Your task to perform on an android device: When is my next meeting? Image 0: 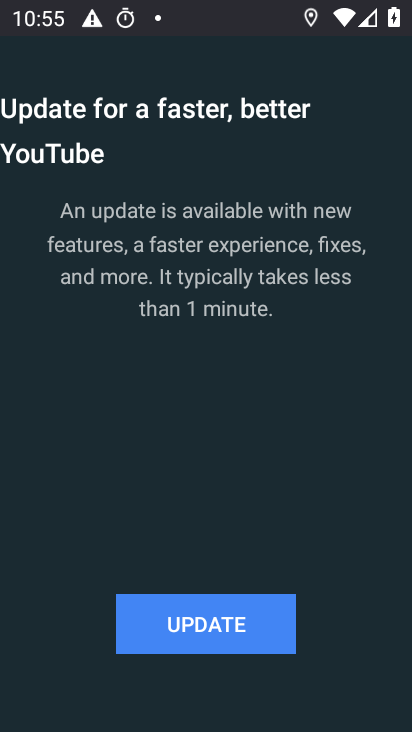
Step 0: press home button
Your task to perform on an android device: When is my next meeting? Image 1: 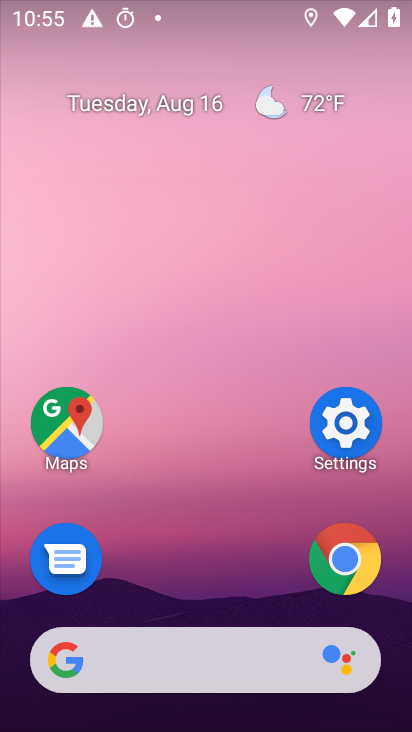
Step 1: drag from (200, 652) to (220, 83)
Your task to perform on an android device: When is my next meeting? Image 2: 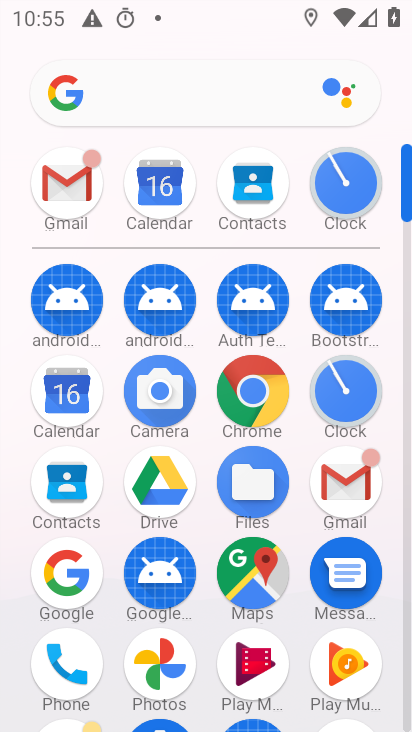
Step 2: click (144, 193)
Your task to perform on an android device: When is my next meeting? Image 3: 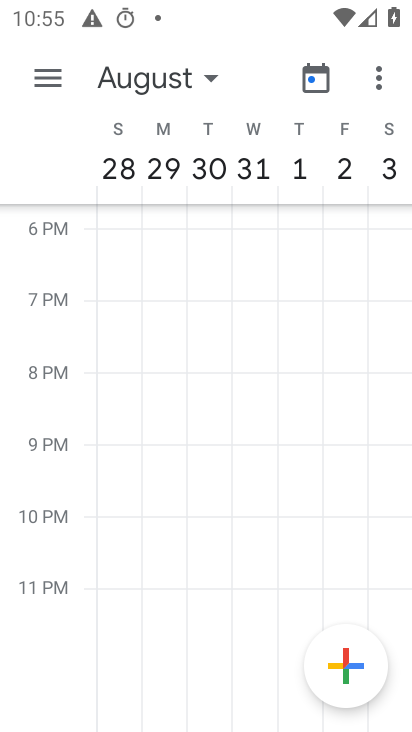
Step 3: click (135, 76)
Your task to perform on an android device: When is my next meeting? Image 4: 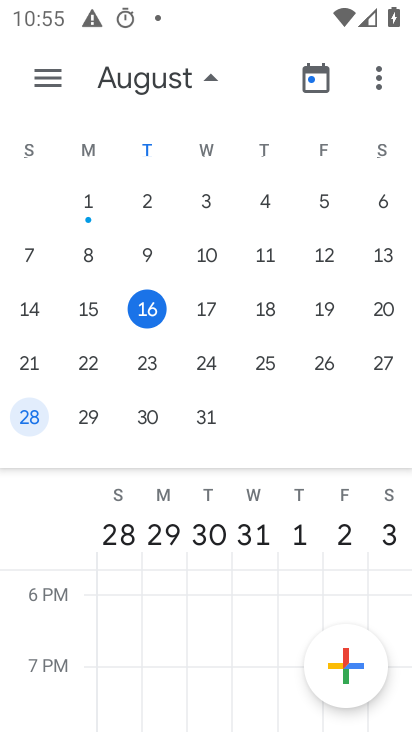
Step 4: drag from (77, 325) to (404, 316)
Your task to perform on an android device: When is my next meeting? Image 5: 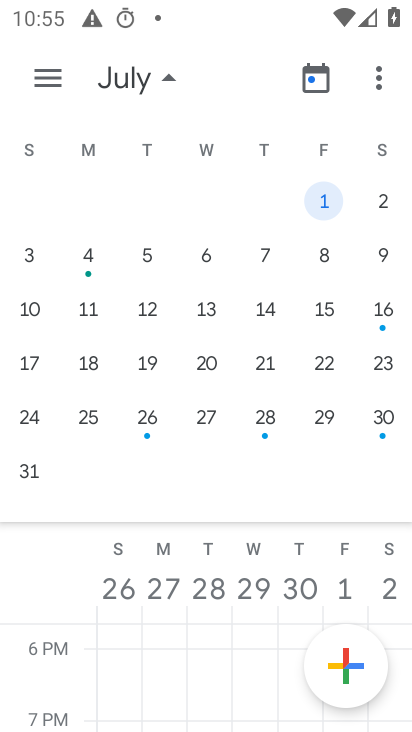
Step 5: drag from (342, 350) to (17, 314)
Your task to perform on an android device: When is my next meeting? Image 6: 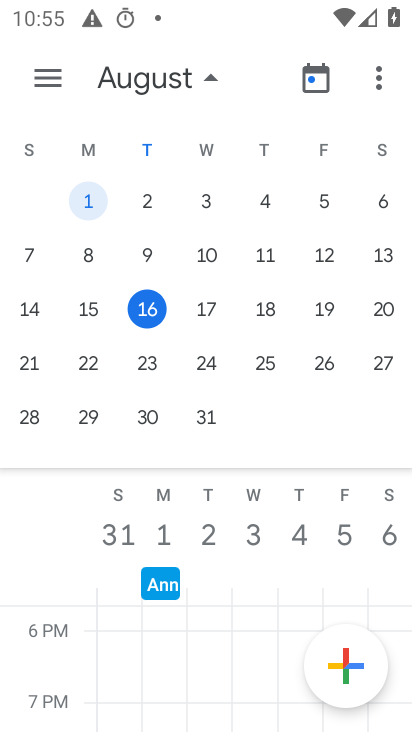
Step 6: click (151, 313)
Your task to perform on an android device: When is my next meeting? Image 7: 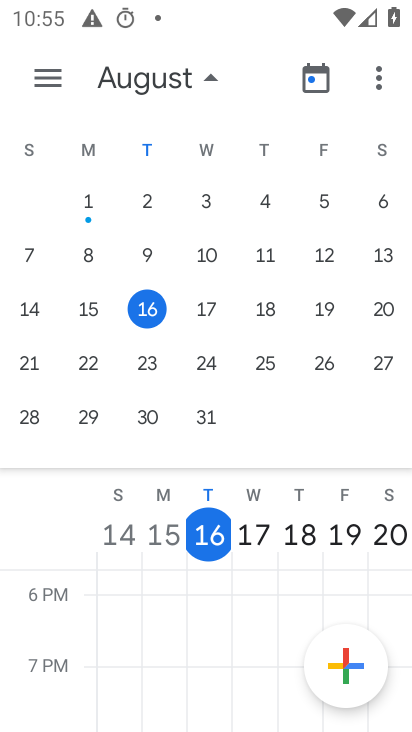
Step 7: click (54, 77)
Your task to perform on an android device: When is my next meeting? Image 8: 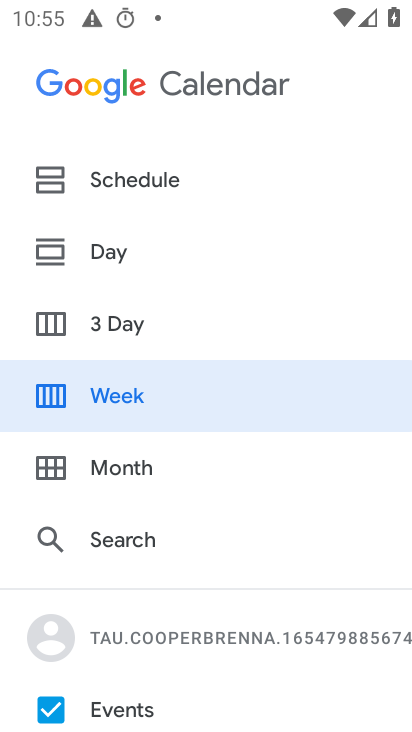
Step 8: click (123, 389)
Your task to perform on an android device: When is my next meeting? Image 9: 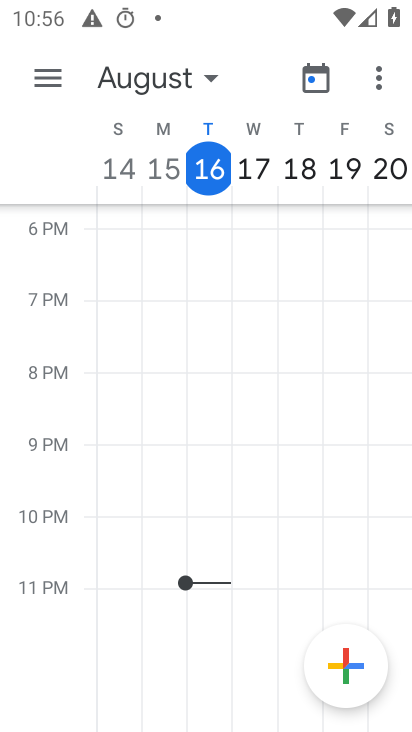
Step 9: click (35, 85)
Your task to perform on an android device: When is my next meeting? Image 10: 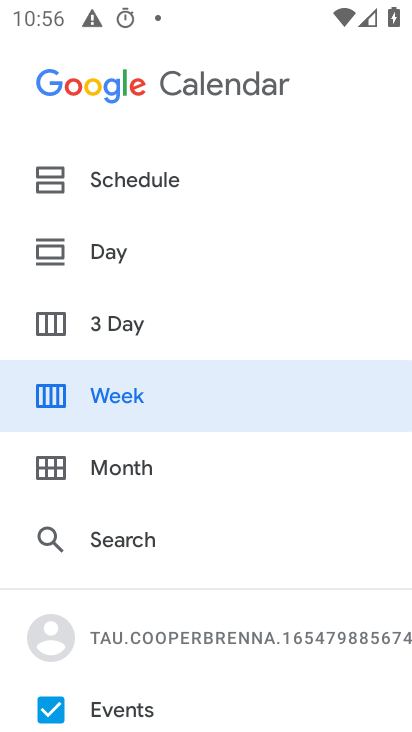
Step 10: click (145, 180)
Your task to perform on an android device: When is my next meeting? Image 11: 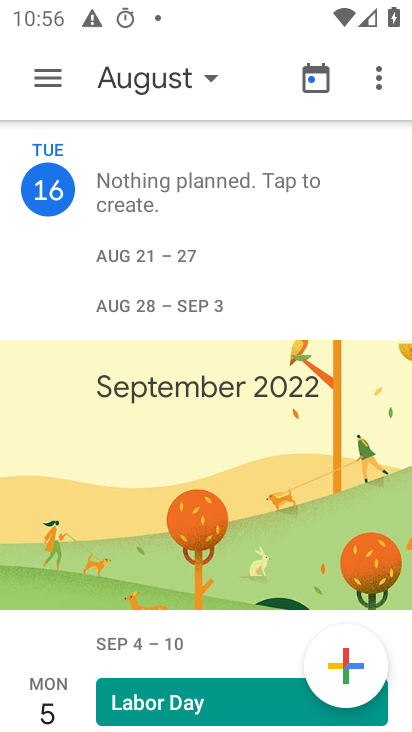
Step 11: task complete